Your task to perform on an android device: Open calendar and show me the second week of next month Image 0: 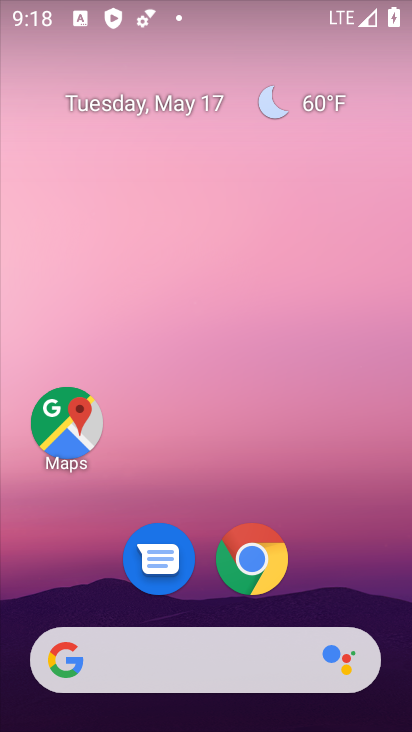
Step 0: drag from (199, 604) to (182, 126)
Your task to perform on an android device: Open calendar and show me the second week of next month Image 1: 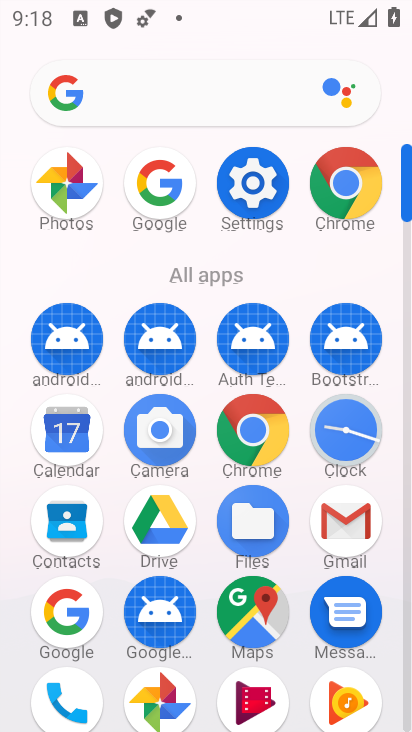
Step 1: click (53, 464)
Your task to perform on an android device: Open calendar and show me the second week of next month Image 2: 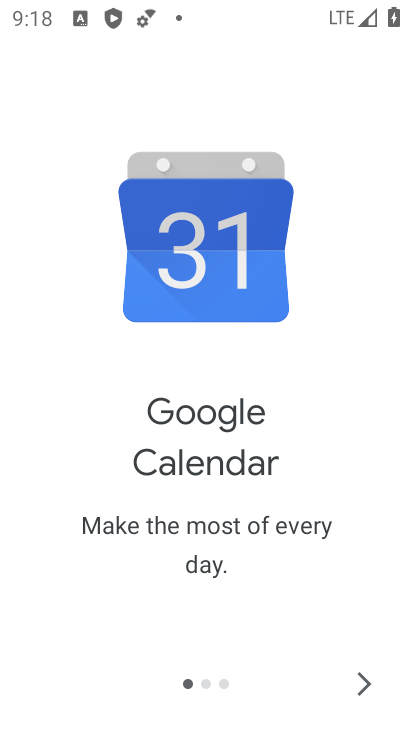
Step 2: click (356, 670)
Your task to perform on an android device: Open calendar and show me the second week of next month Image 3: 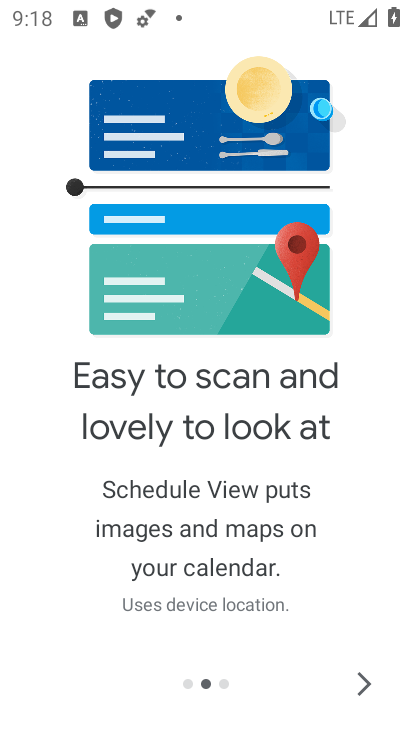
Step 3: click (356, 670)
Your task to perform on an android device: Open calendar and show me the second week of next month Image 4: 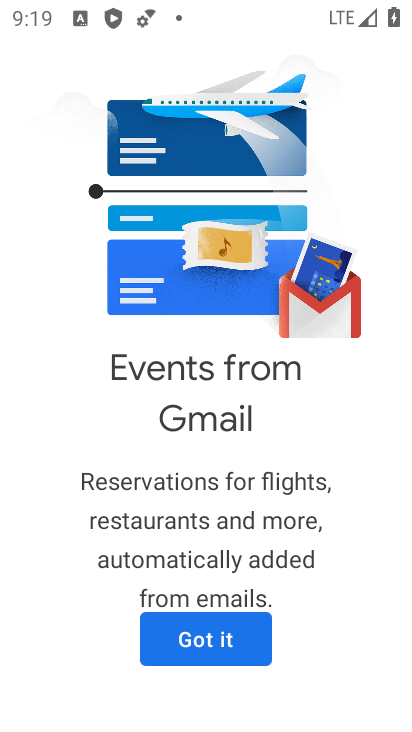
Step 4: click (234, 634)
Your task to perform on an android device: Open calendar and show me the second week of next month Image 5: 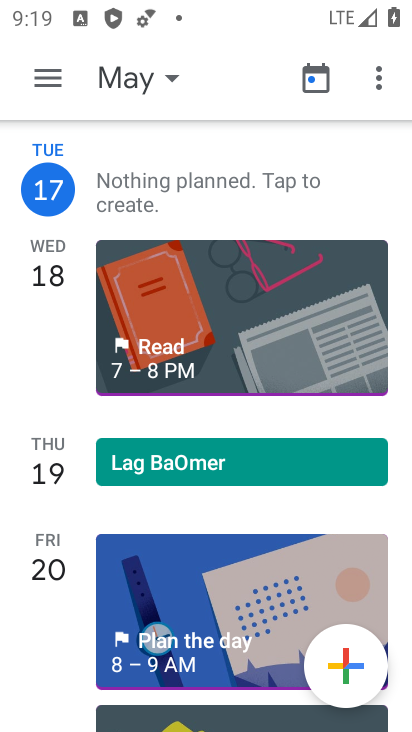
Step 5: click (168, 77)
Your task to perform on an android device: Open calendar and show me the second week of next month Image 6: 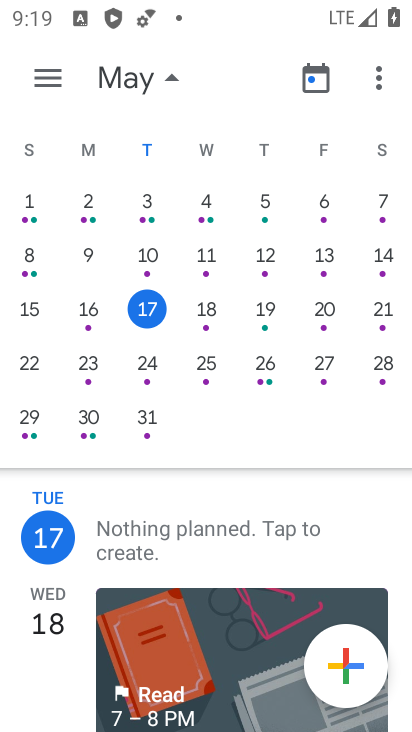
Step 6: drag from (376, 308) to (7, 271)
Your task to perform on an android device: Open calendar and show me the second week of next month Image 7: 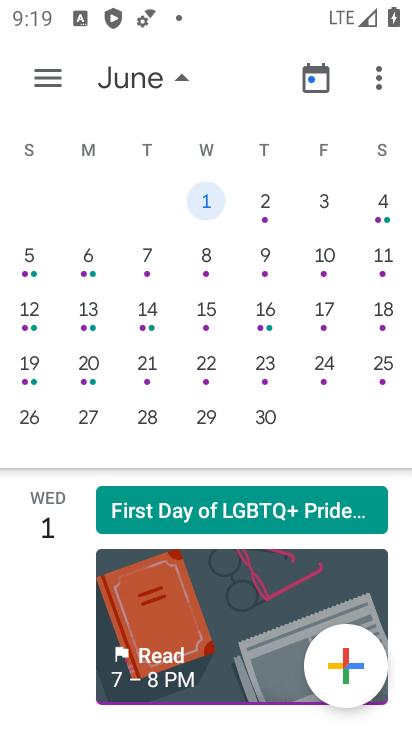
Step 7: click (33, 261)
Your task to perform on an android device: Open calendar and show me the second week of next month Image 8: 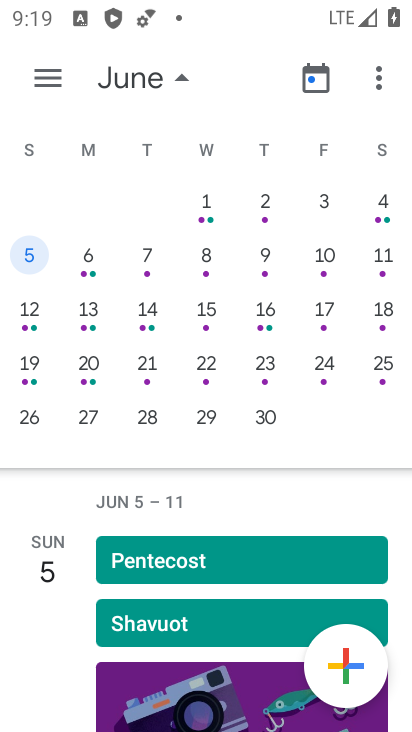
Step 8: task complete